Your task to perform on an android device: Go to CNN.com Image 0: 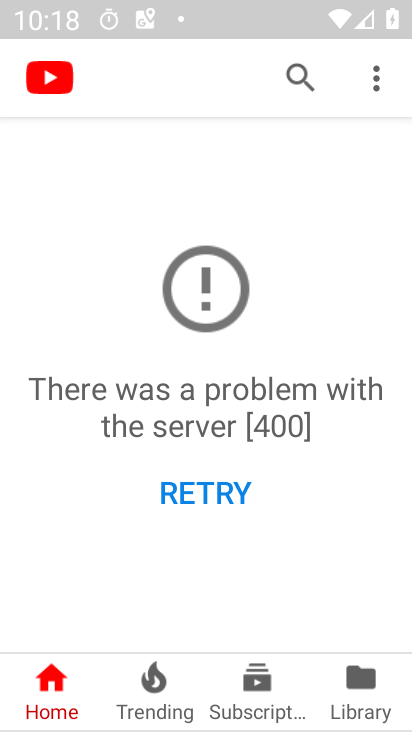
Step 0: press home button
Your task to perform on an android device: Go to CNN.com Image 1: 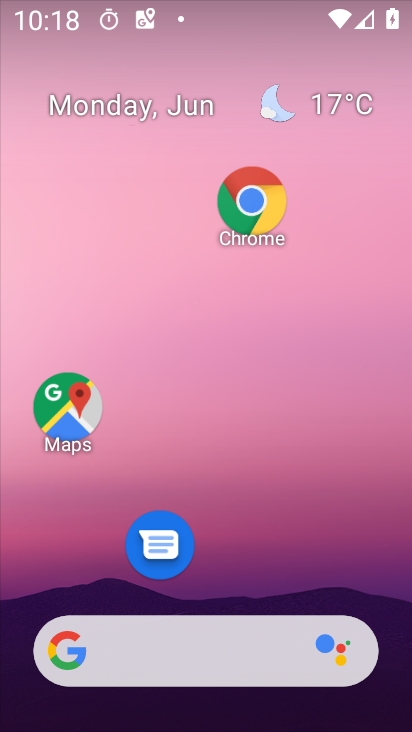
Step 1: drag from (202, 607) to (146, 45)
Your task to perform on an android device: Go to CNN.com Image 2: 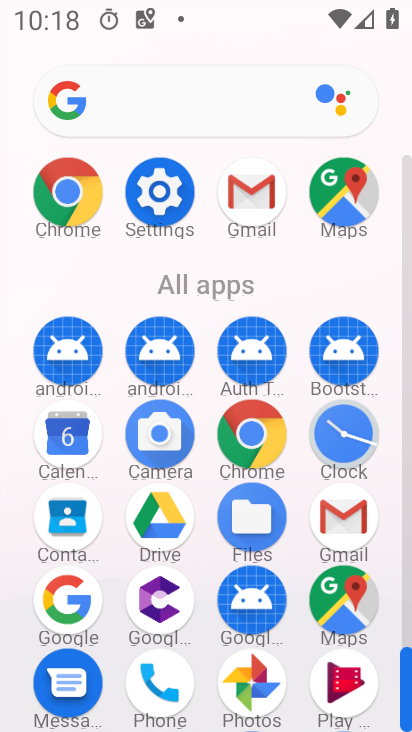
Step 2: click (79, 207)
Your task to perform on an android device: Go to CNN.com Image 3: 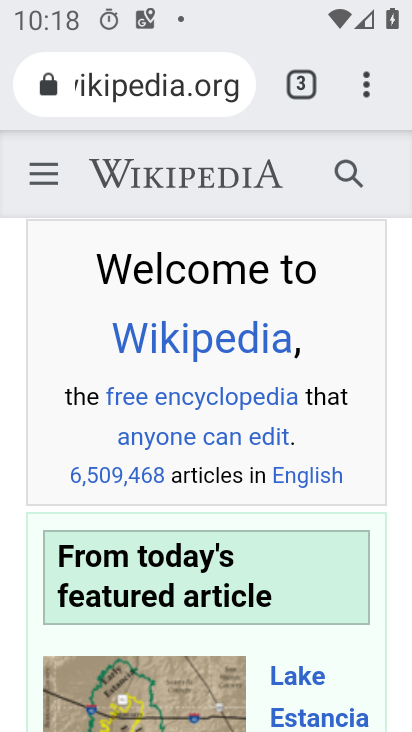
Step 3: click (300, 89)
Your task to perform on an android device: Go to CNN.com Image 4: 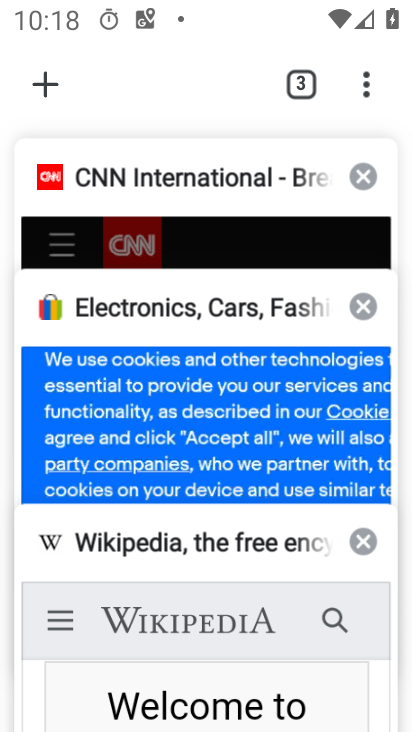
Step 4: click (80, 180)
Your task to perform on an android device: Go to CNN.com Image 5: 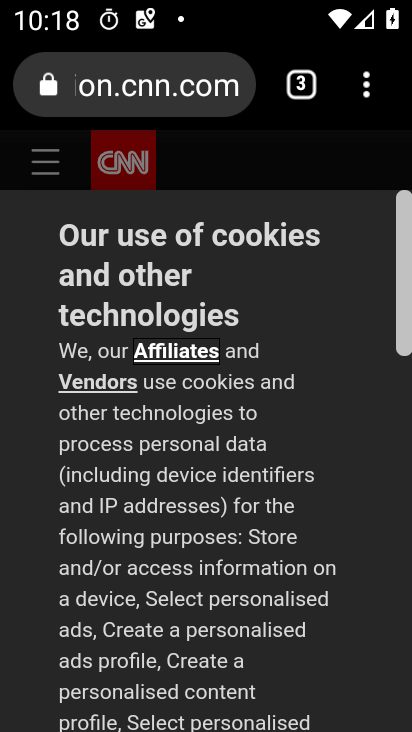
Step 5: drag from (228, 676) to (183, 58)
Your task to perform on an android device: Go to CNN.com Image 6: 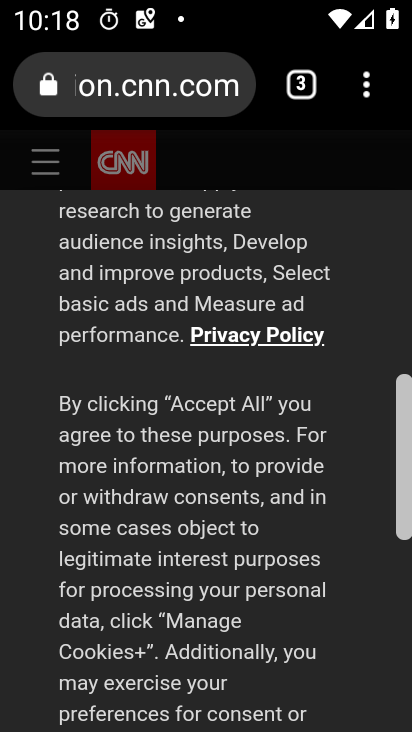
Step 6: drag from (295, 586) to (266, 135)
Your task to perform on an android device: Go to CNN.com Image 7: 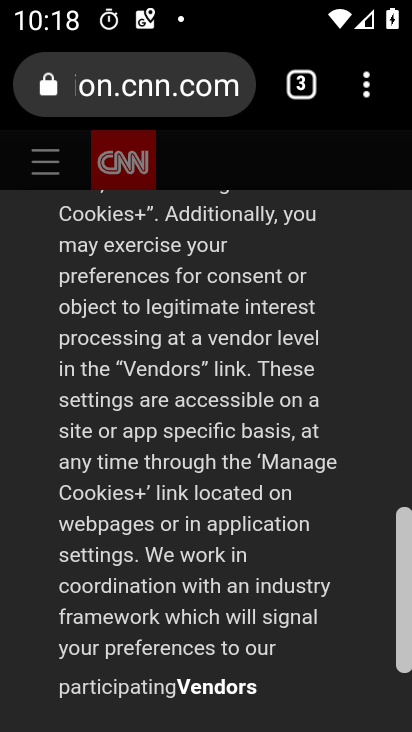
Step 7: drag from (233, 683) to (215, 211)
Your task to perform on an android device: Go to CNN.com Image 8: 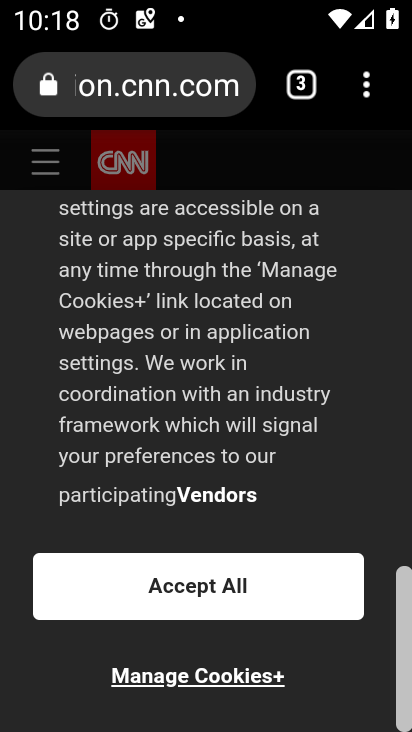
Step 8: click (242, 576)
Your task to perform on an android device: Go to CNN.com Image 9: 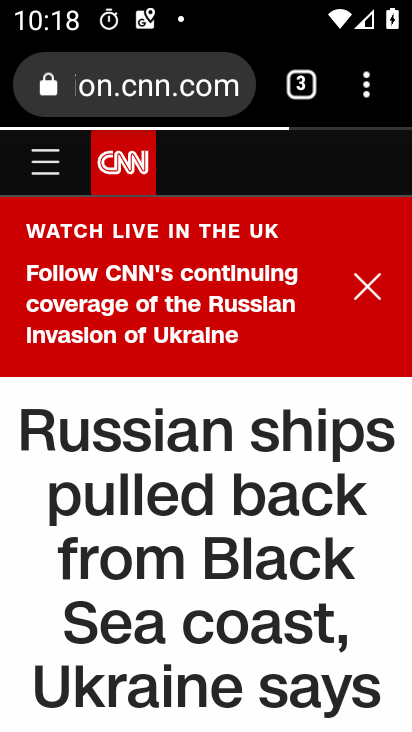
Step 9: task complete